Your task to perform on an android device: allow notifications from all sites in the chrome app Image 0: 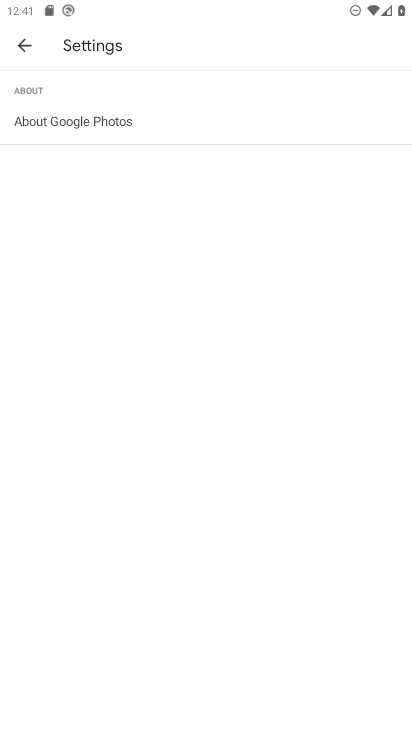
Step 0: press home button
Your task to perform on an android device: allow notifications from all sites in the chrome app Image 1: 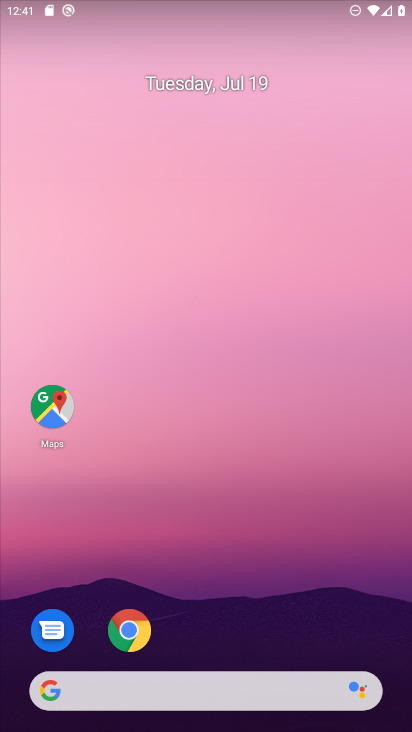
Step 1: click (129, 626)
Your task to perform on an android device: allow notifications from all sites in the chrome app Image 2: 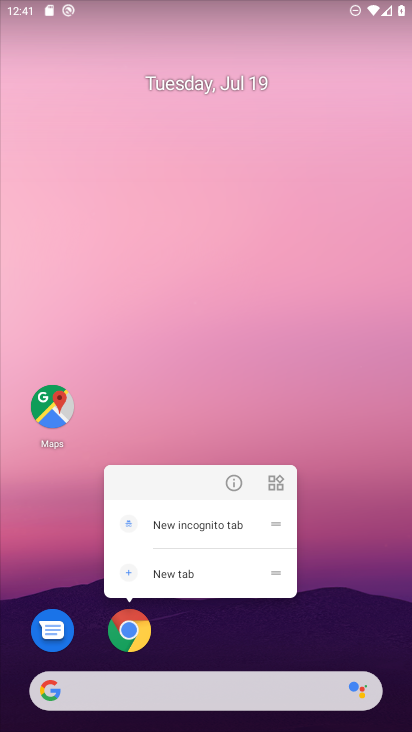
Step 2: click (124, 631)
Your task to perform on an android device: allow notifications from all sites in the chrome app Image 3: 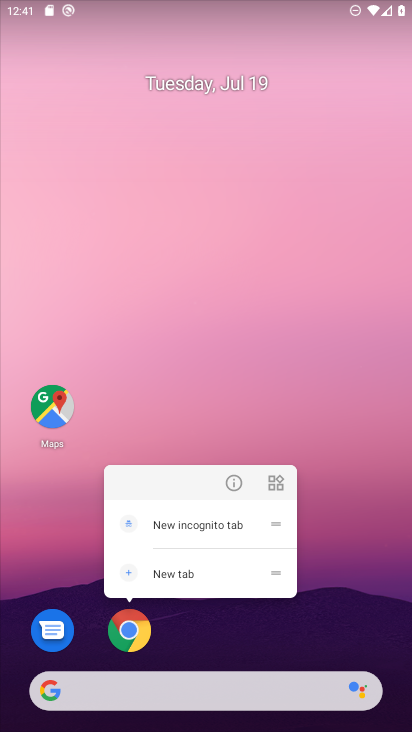
Step 3: click (124, 631)
Your task to perform on an android device: allow notifications from all sites in the chrome app Image 4: 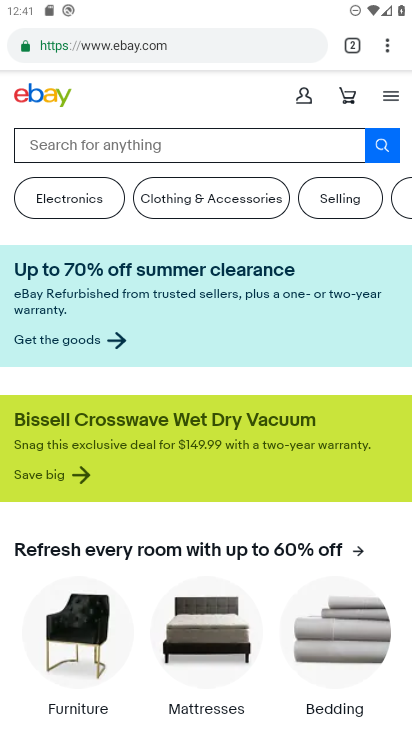
Step 4: drag from (389, 45) to (254, 552)
Your task to perform on an android device: allow notifications from all sites in the chrome app Image 5: 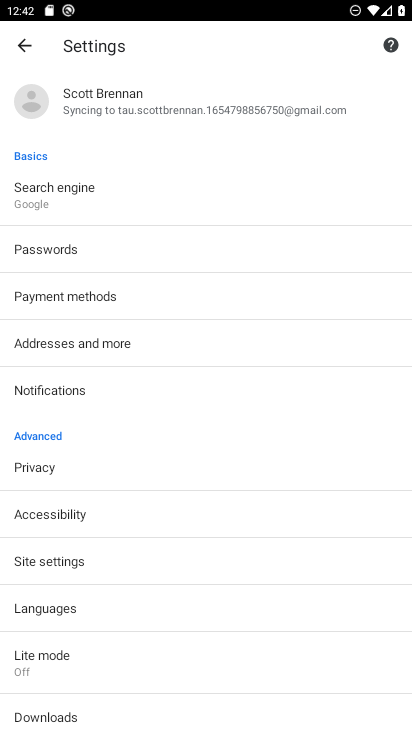
Step 5: click (80, 560)
Your task to perform on an android device: allow notifications from all sites in the chrome app Image 6: 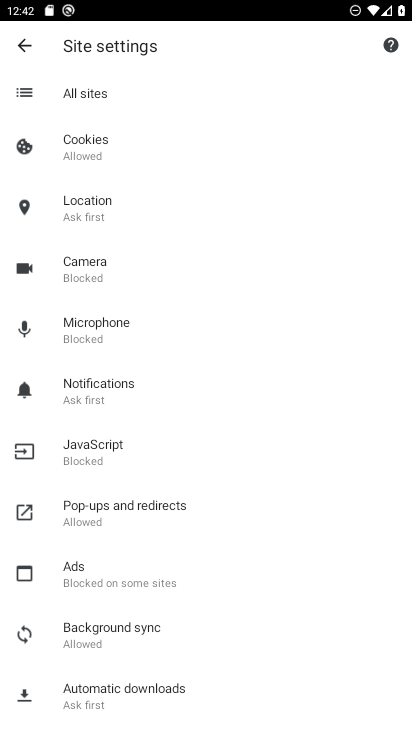
Step 6: click (112, 392)
Your task to perform on an android device: allow notifications from all sites in the chrome app Image 7: 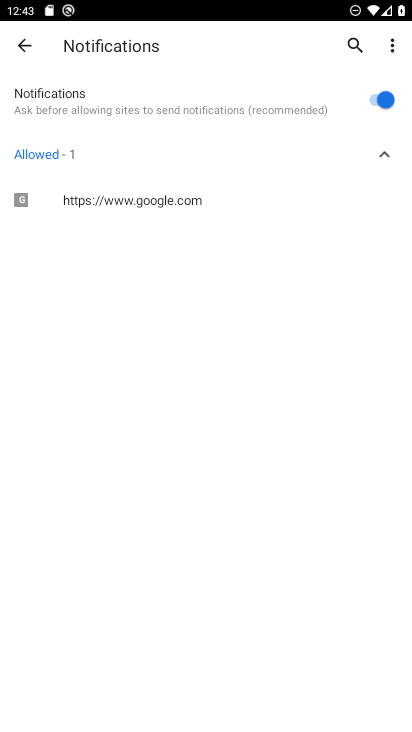
Step 7: task complete